Your task to perform on an android device: Go to notification settings Image 0: 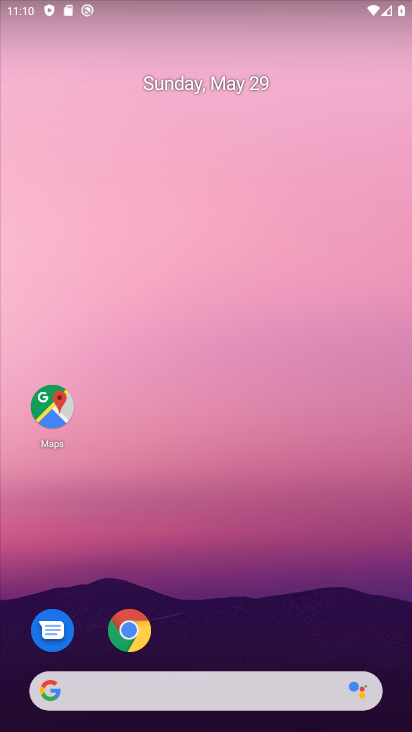
Step 0: drag from (141, 731) to (145, 130)
Your task to perform on an android device: Go to notification settings Image 1: 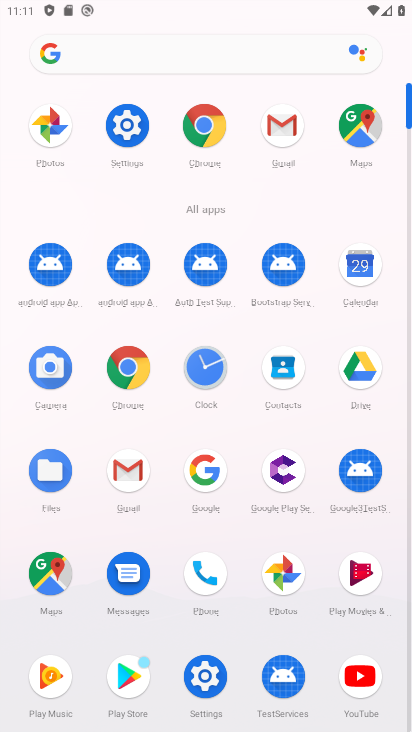
Step 1: click (116, 129)
Your task to perform on an android device: Go to notification settings Image 2: 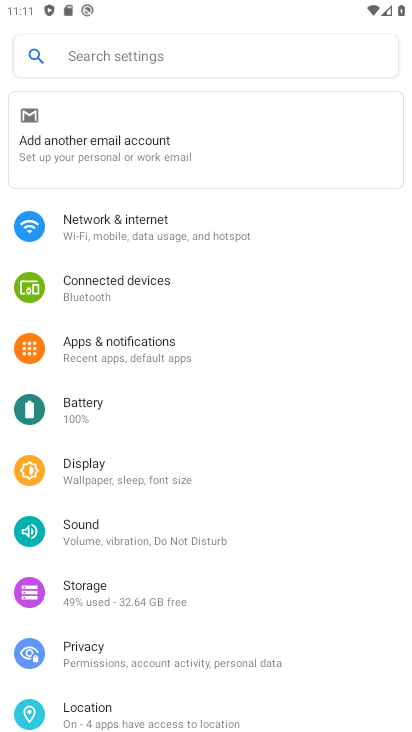
Step 2: click (151, 353)
Your task to perform on an android device: Go to notification settings Image 3: 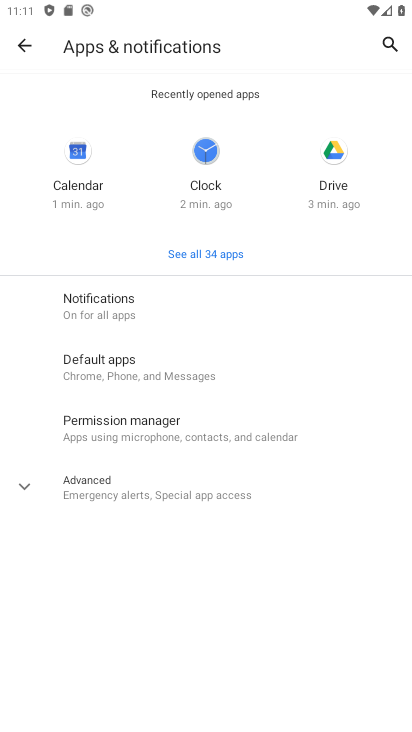
Step 3: task complete